Your task to perform on an android device: Go to Wikipedia Image 0: 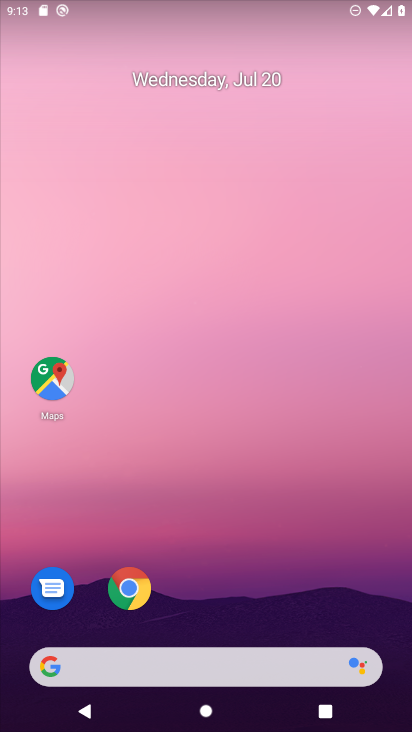
Step 0: click (170, 652)
Your task to perform on an android device: Go to Wikipedia Image 1: 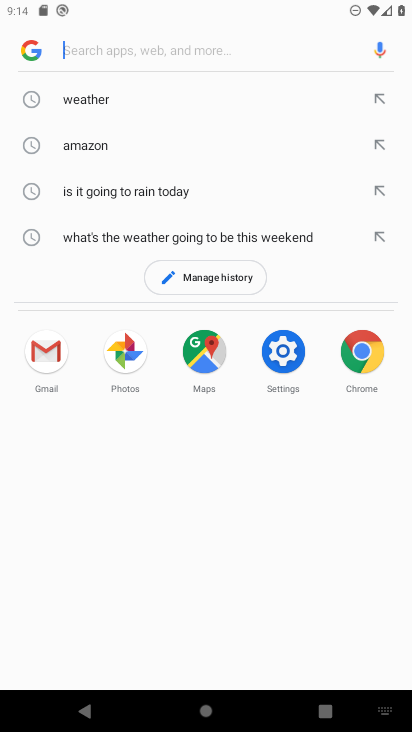
Step 1: type "wikipedia"
Your task to perform on an android device: Go to Wikipedia Image 2: 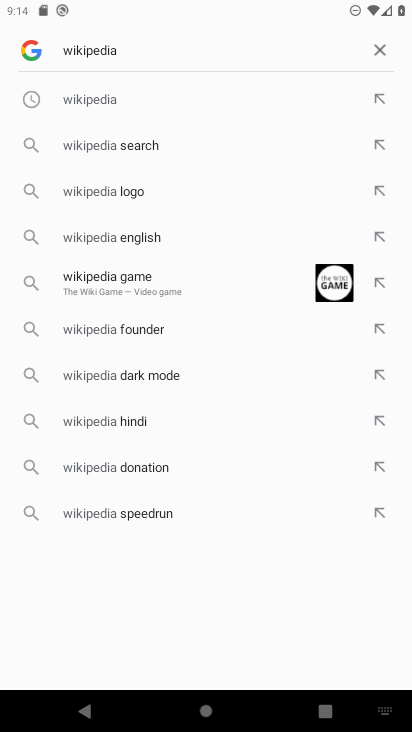
Step 2: click (161, 109)
Your task to perform on an android device: Go to Wikipedia Image 3: 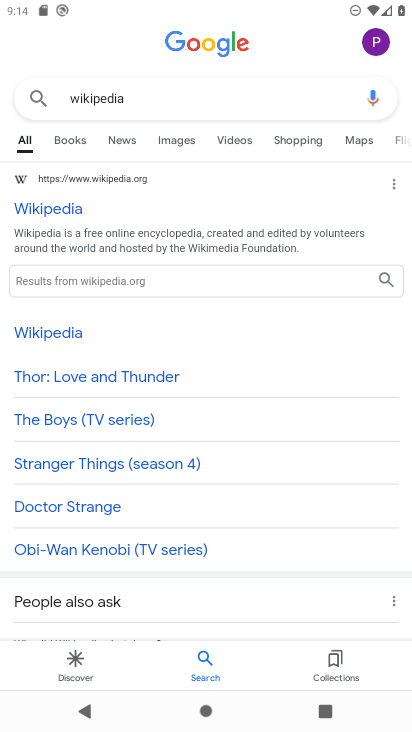
Step 3: click (143, 246)
Your task to perform on an android device: Go to Wikipedia Image 4: 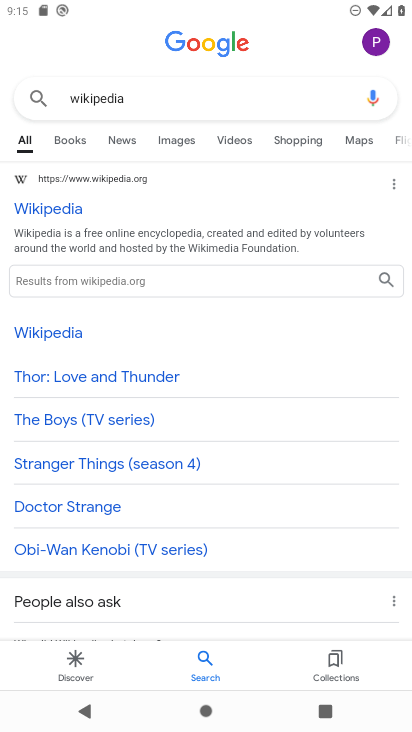
Step 4: click (37, 213)
Your task to perform on an android device: Go to Wikipedia Image 5: 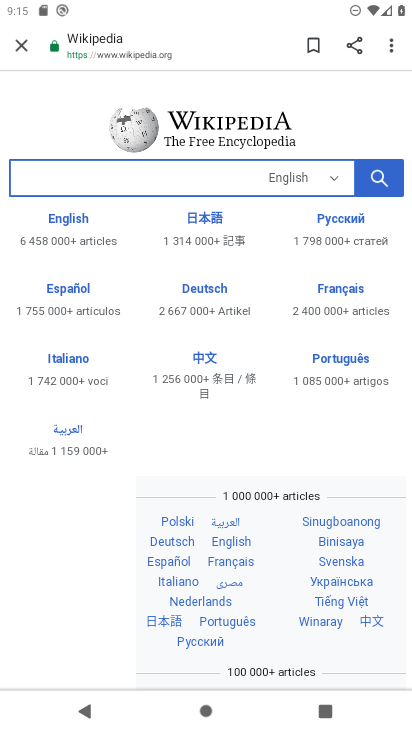
Step 5: task complete